Your task to perform on an android device: Google the capital of Panama Image 0: 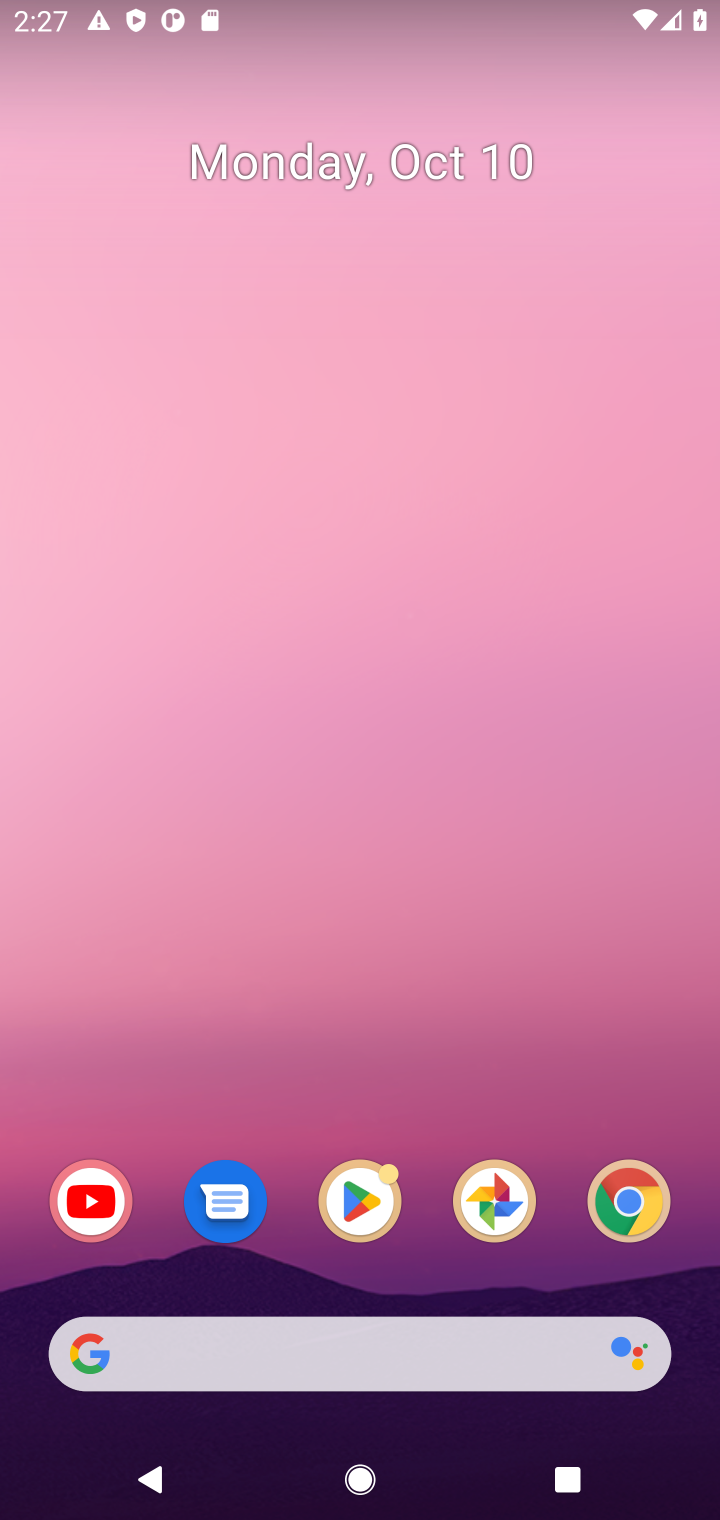
Step 0: type "capital of Panama"
Your task to perform on an android device: Google the capital of Panama Image 1: 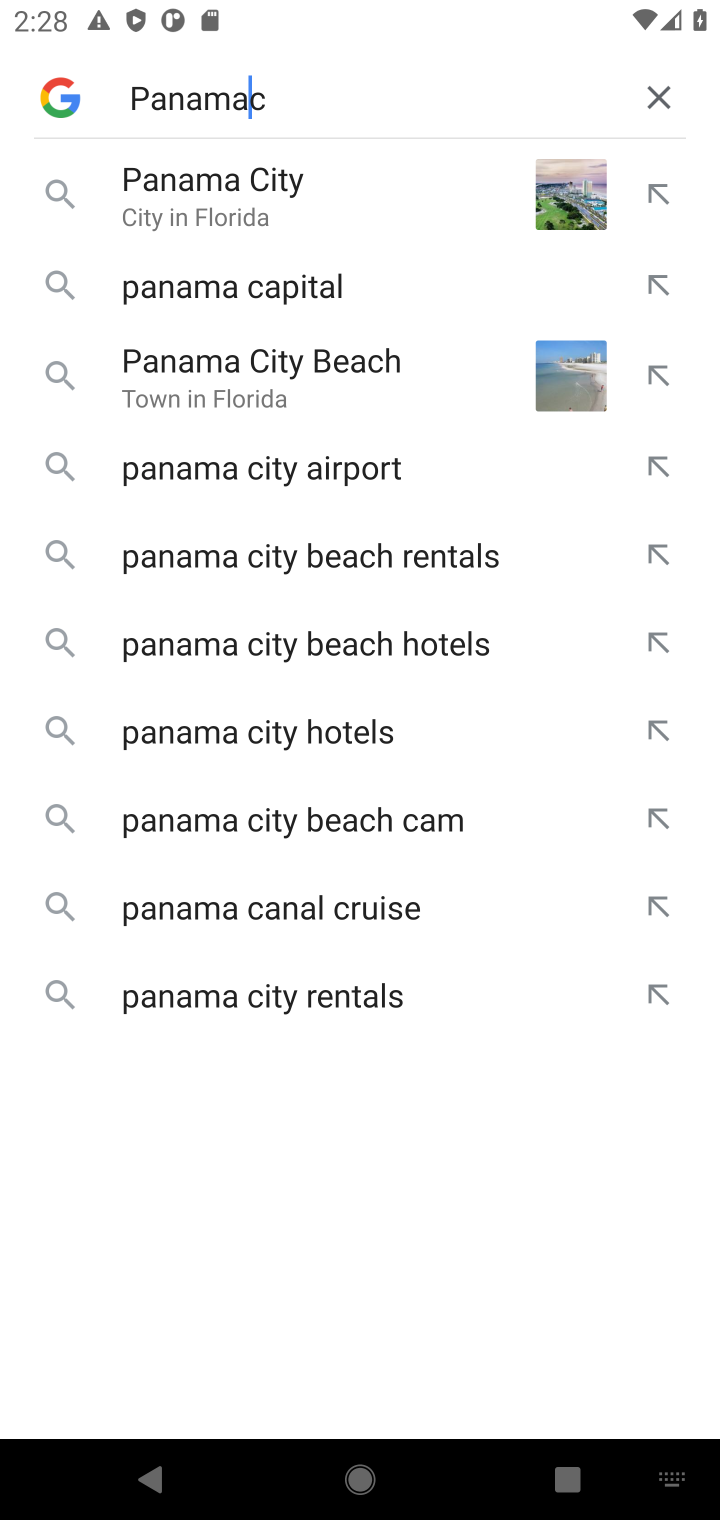
Step 1: click (240, 313)
Your task to perform on an android device: Google the capital of Panama Image 2: 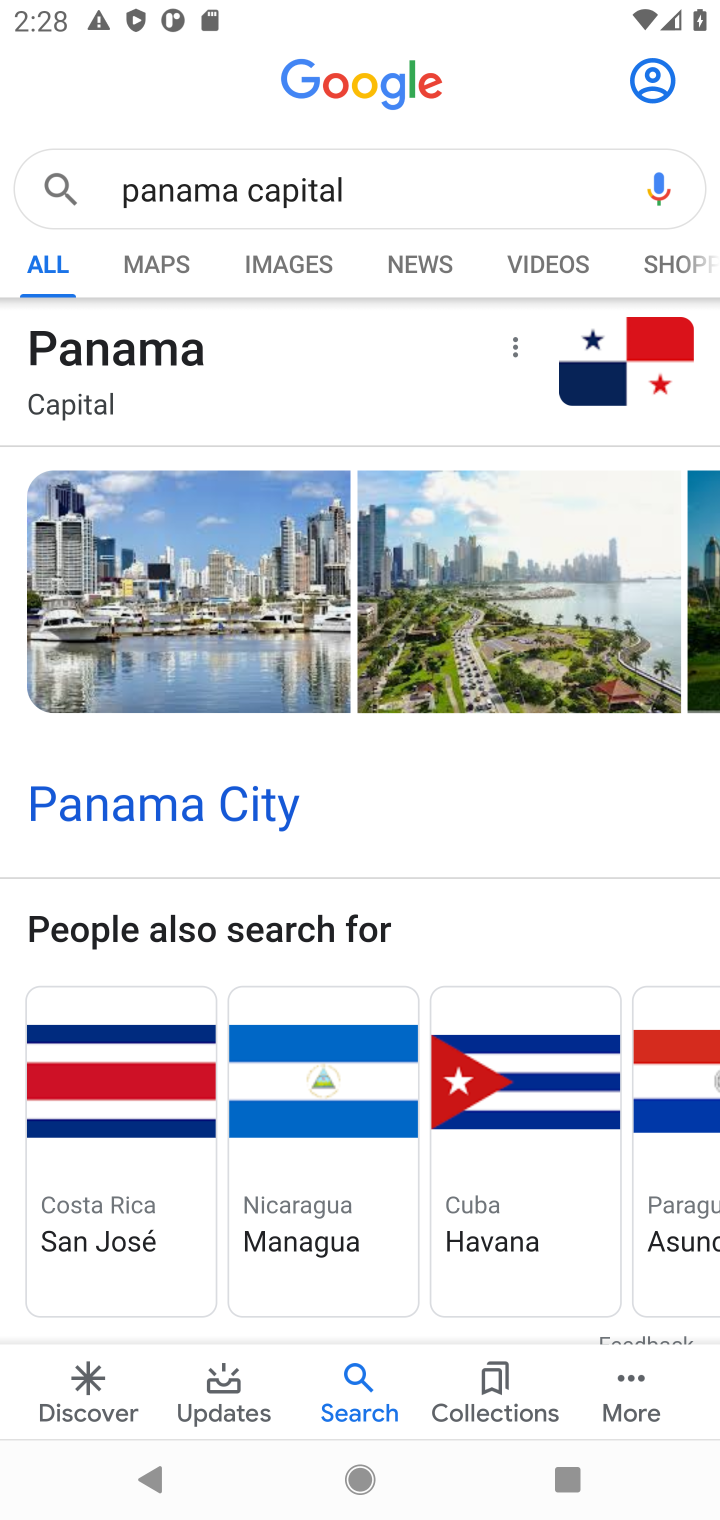
Step 2: click (556, 890)
Your task to perform on an android device: Google the capital of Panama Image 3: 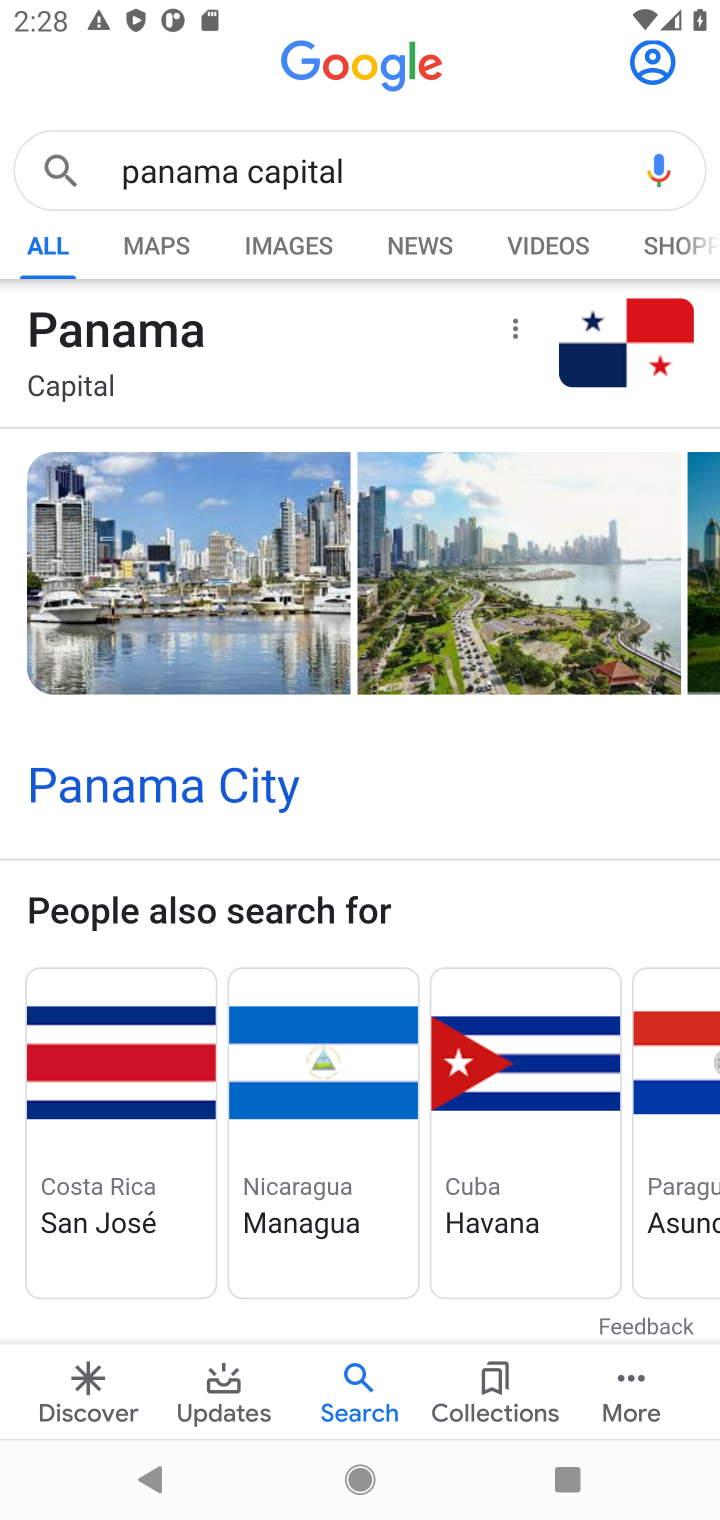
Step 3: task complete